Your task to perform on an android device: change alarm snooze length Image 0: 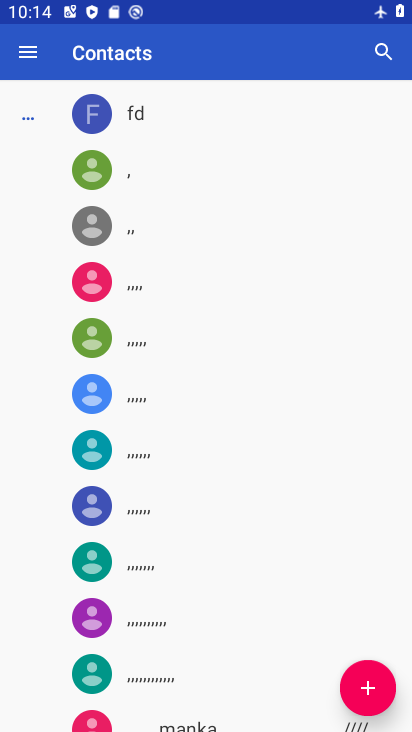
Step 0: press home button
Your task to perform on an android device: change alarm snooze length Image 1: 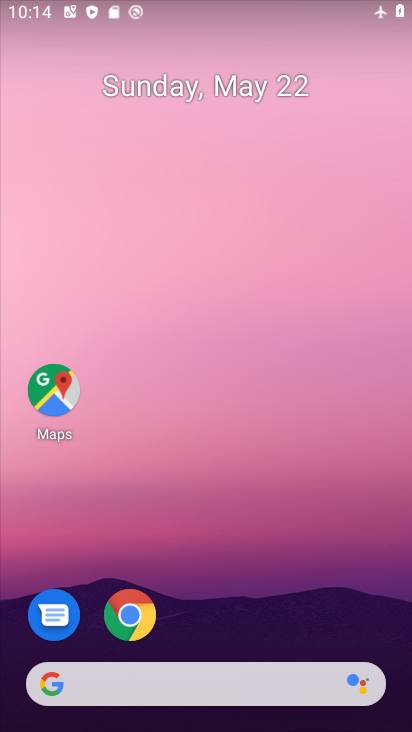
Step 1: drag from (324, 575) to (260, 187)
Your task to perform on an android device: change alarm snooze length Image 2: 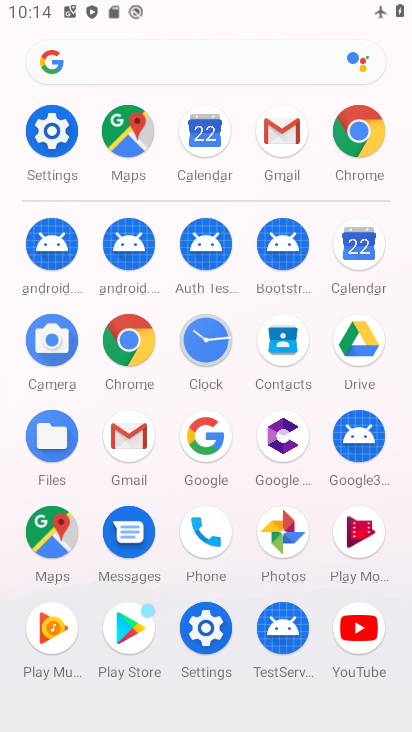
Step 2: click (204, 328)
Your task to perform on an android device: change alarm snooze length Image 3: 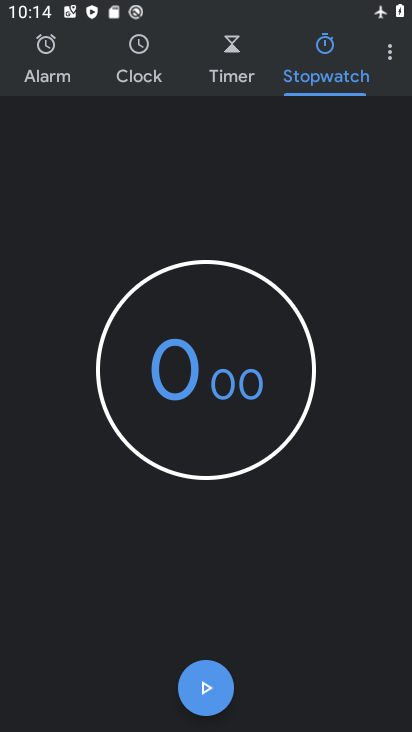
Step 3: click (389, 43)
Your task to perform on an android device: change alarm snooze length Image 4: 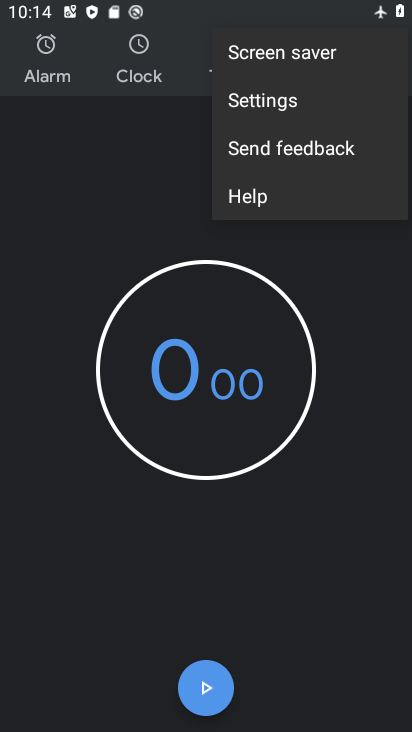
Step 4: click (270, 93)
Your task to perform on an android device: change alarm snooze length Image 5: 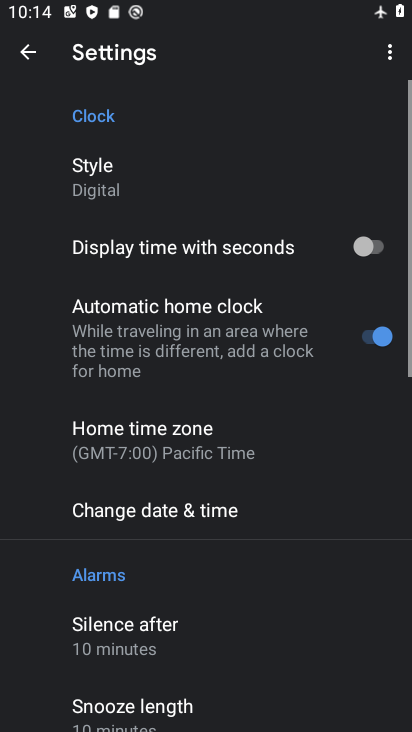
Step 5: drag from (249, 584) to (252, 97)
Your task to perform on an android device: change alarm snooze length Image 6: 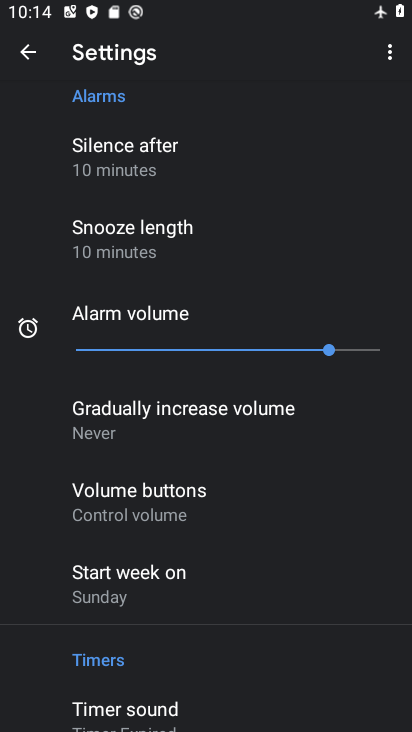
Step 6: click (175, 232)
Your task to perform on an android device: change alarm snooze length Image 7: 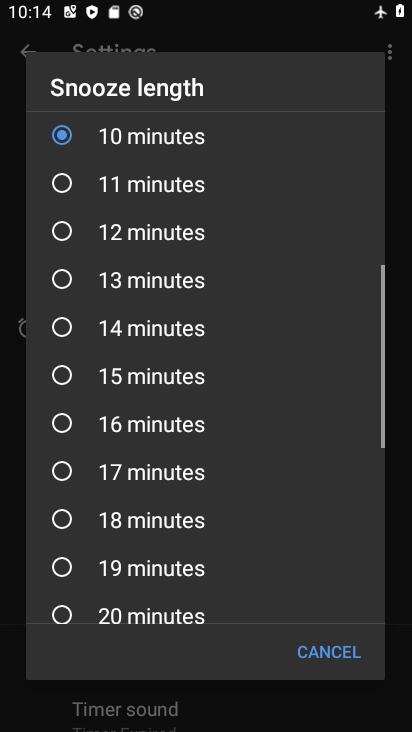
Step 7: click (148, 193)
Your task to perform on an android device: change alarm snooze length Image 8: 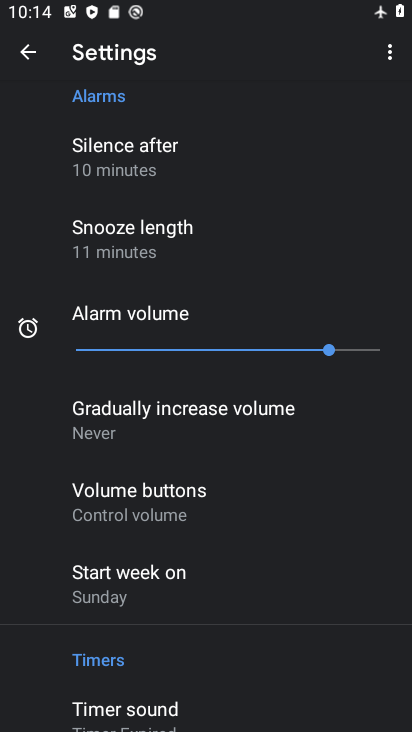
Step 8: task complete